Your task to perform on an android device: What's on my calendar today? Image 0: 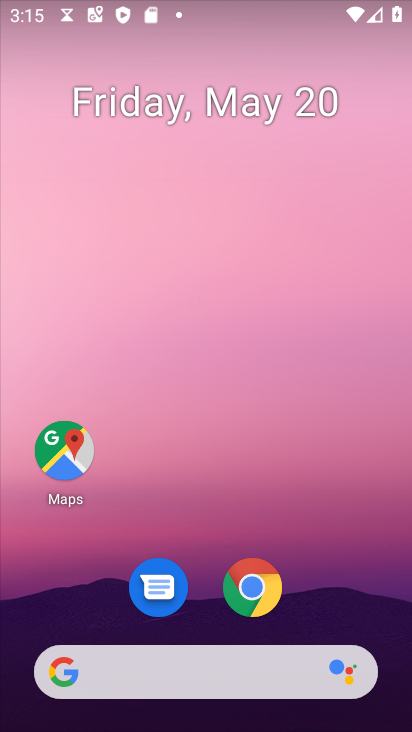
Step 0: drag from (383, 604) to (264, 153)
Your task to perform on an android device: What's on my calendar today? Image 1: 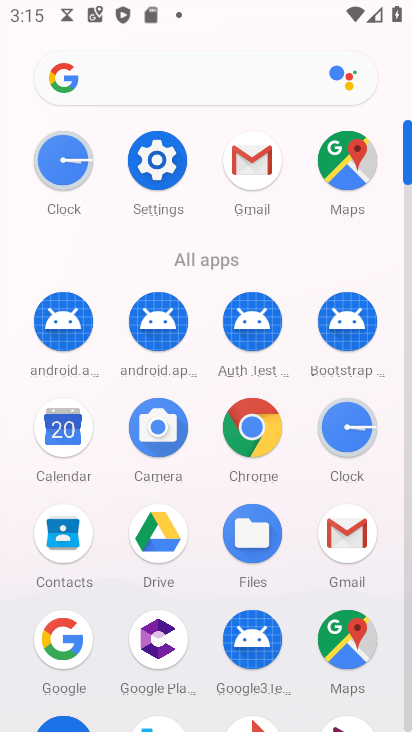
Step 1: click (70, 431)
Your task to perform on an android device: What's on my calendar today? Image 2: 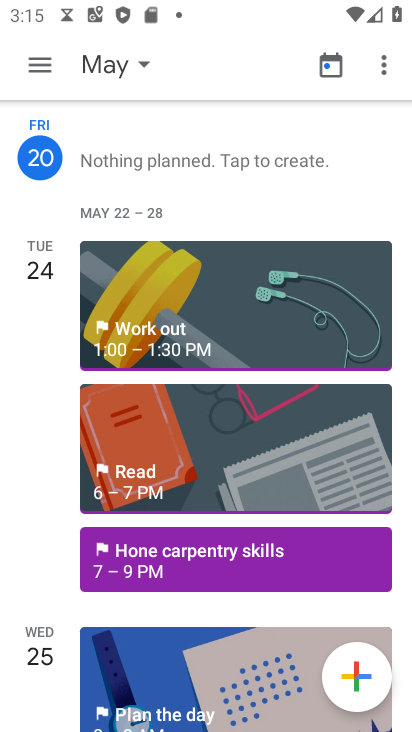
Step 2: click (96, 62)
Your task to perform on an android device: What's on my calendar today? Image 3: 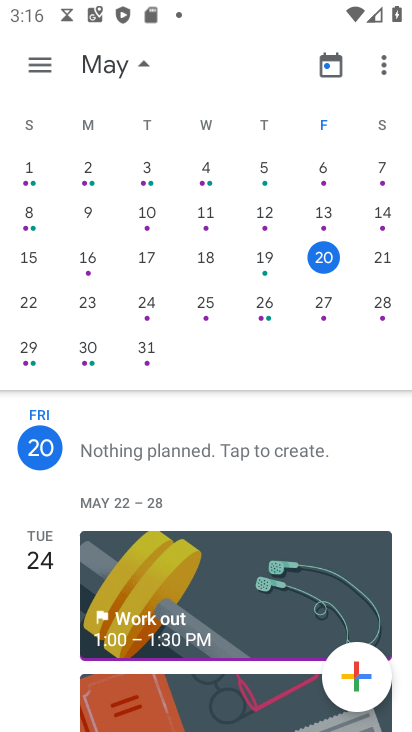
Step 3: click (318, 256)
Your task to perform on an android device: What's on my calendar today? Image 4: 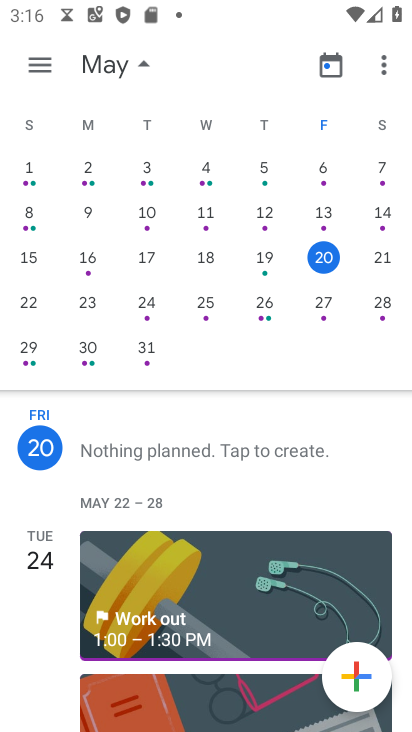
Step 4: click (113, 64)
Your task to perform on an android device: What's on my calendar today? Image 5: 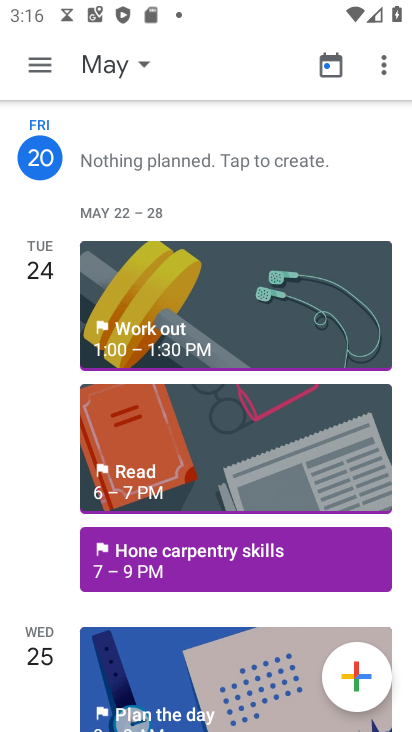
Step 5: task complete